Your task to perform on an android device: Go to sound settings Image 0: 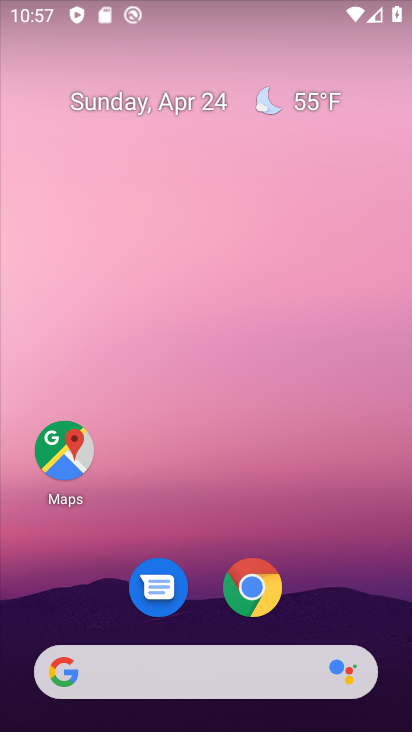
Step 0: drag from (377, 464) to (28, 157)
Your task to perform on an android device: Go to sound settings Image 1: 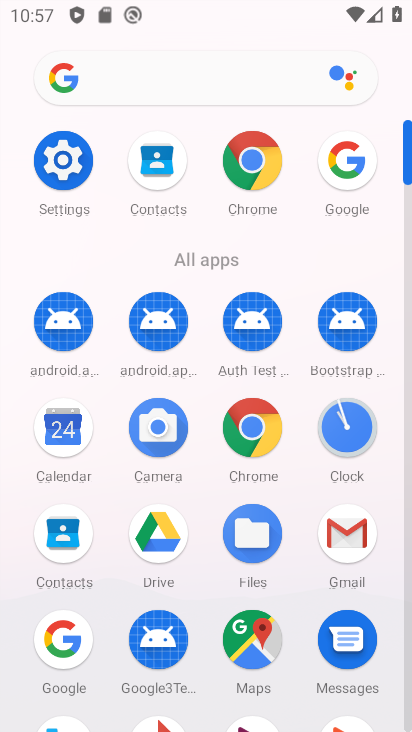
Step 1: click (82, 158)
Your task to perform on an android device: Go to sound settings Image 2: 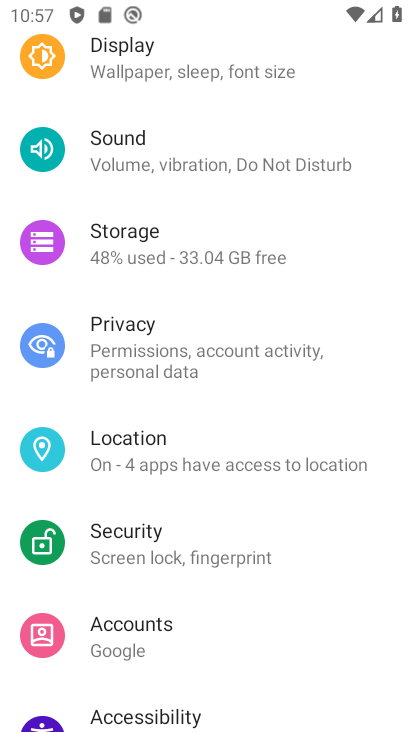
Step 2: drag from (278, 233) to (268, 512)
Your task to perform on an android device: Go to sound settings Image 3: 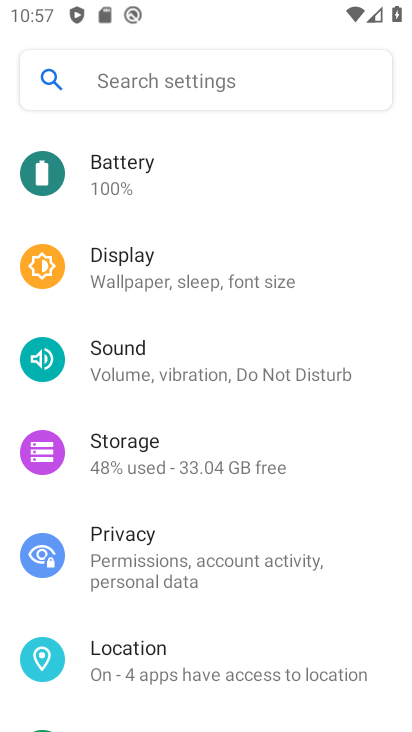
Step 3: drag from (233, 383) to (243, 609)
Your task to perform on an android device: Go to sound settings Image 4: 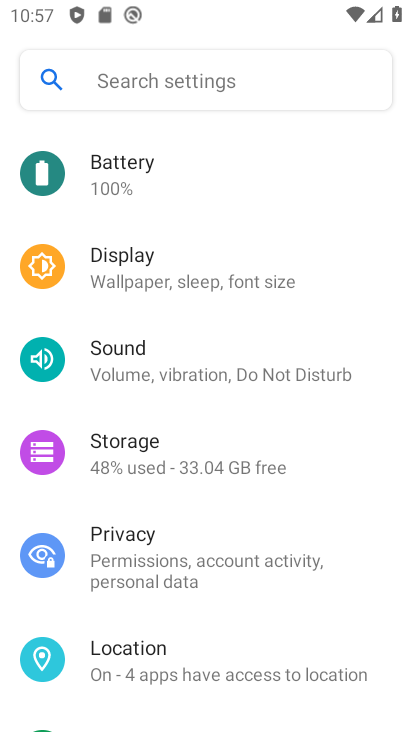
Step 4: drag from (242, 623) to (174, 118)
Your task to perform on an android device: Go to sound settings Image 5: 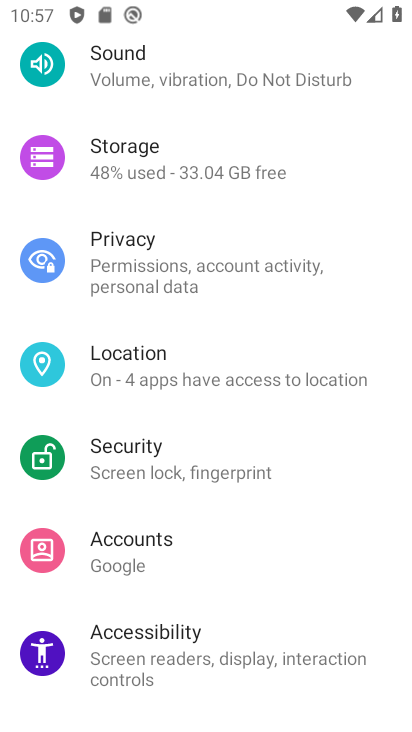
Step 5: click (130, 46)
Your task to perform on an android device: Go to sound settings Image 6: 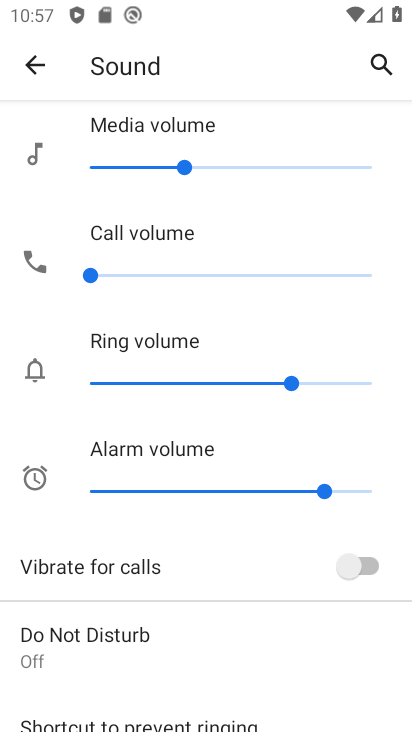
Step 6: task complete